Your task to perform on an android device: Go to Yahoo.com Image 0: 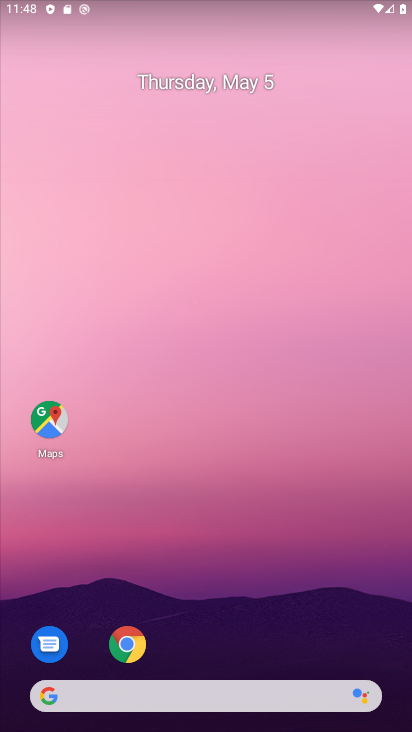
Step 0: click (131, 642)
Your task to perform on an android device: Go to Yahoo.com Image 1: 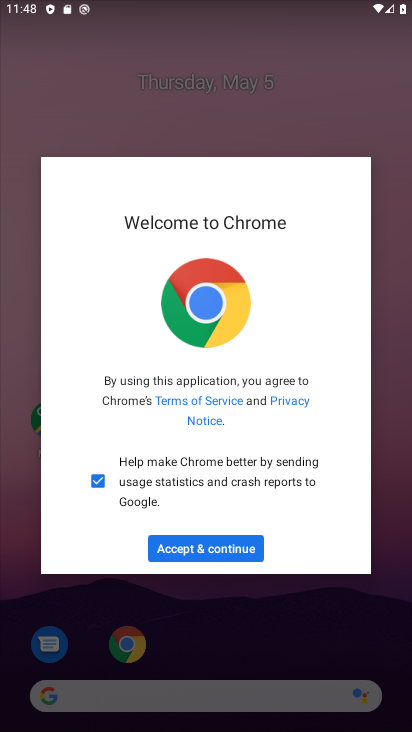
Step 1: click (200, 553)
Your task to perform on an android device: Go to Yahoo.com Image 2: 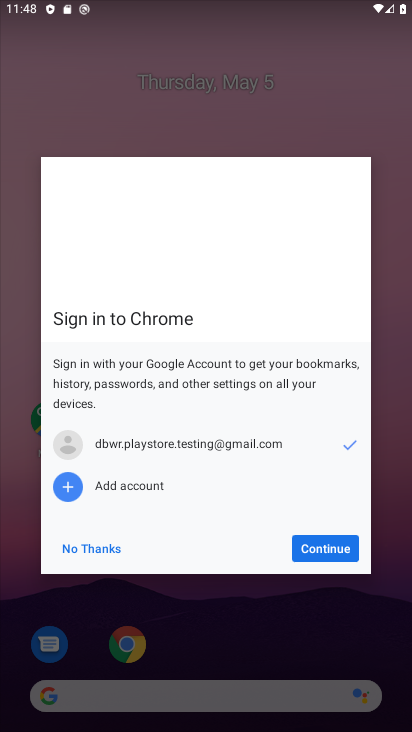
Step 2: click (103, 540)
Your task to perform on an android device: Go to Yahoo.com Image 3: 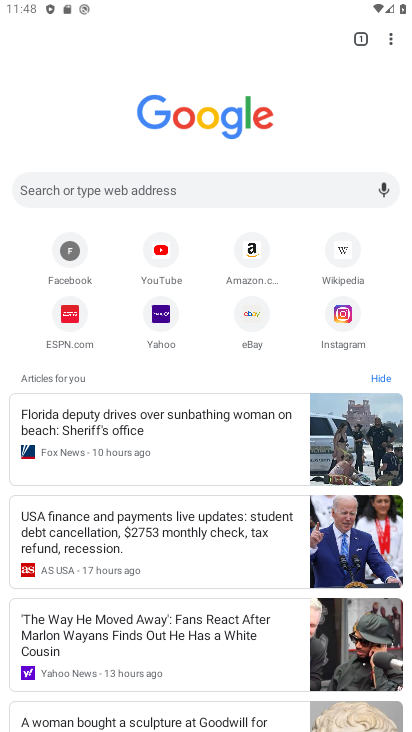
Step 3: click (159, 316)
Your task to perform on an android device: Go to Yahoo.com Image 4: 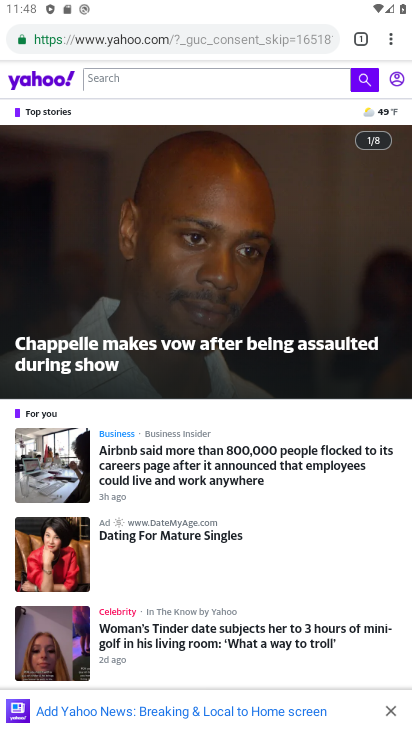
Step 4: task complete